Your task to perform on an android device: turn off data saver in the chrome app Image 0: 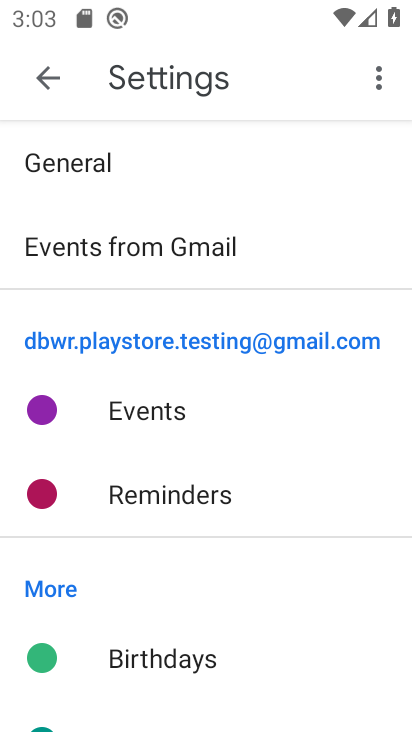
Step 0: drag from (211, 660) to (220, 567)
Your task to perform on an android device: turn off data saver in the chrome app Image 1: 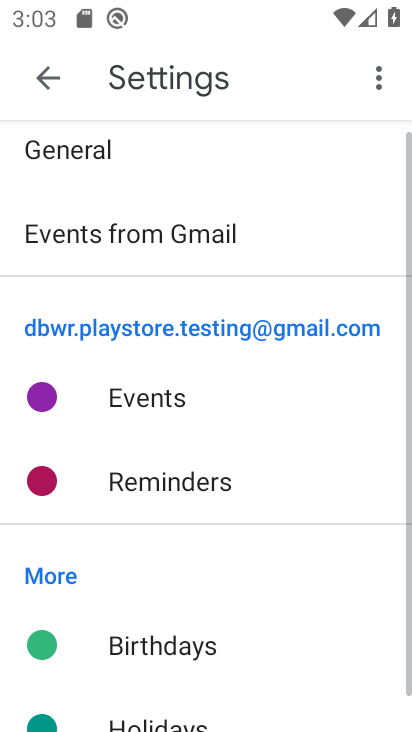
Step 1: press back button
Your task to perform on an android device: turn off data saver in the chrome app Image 2: 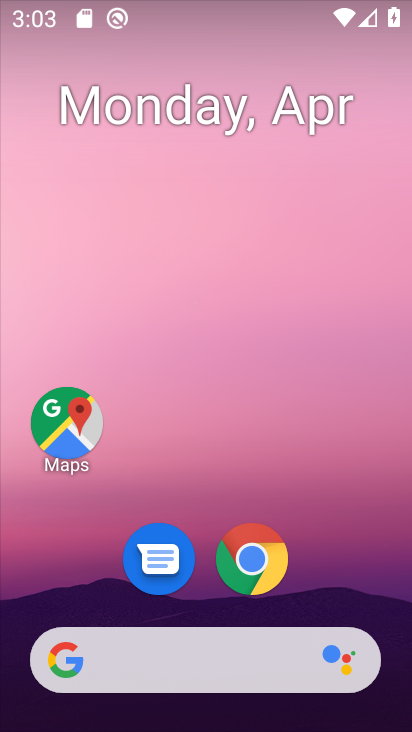
Step 2: click (254, 560)
Your task to perform on an android device: turn off data saver in the chrome app Image 3: 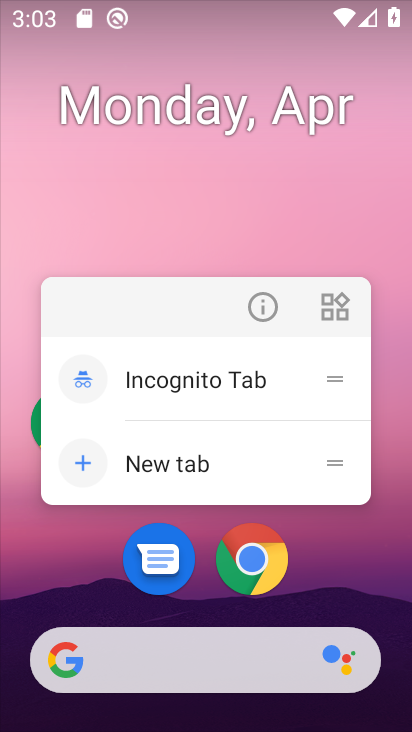
Step 3: drag from (279, 563) to (329, 158)
Your task to perform on an android device: turn off data saver in the chrome app Image 4: 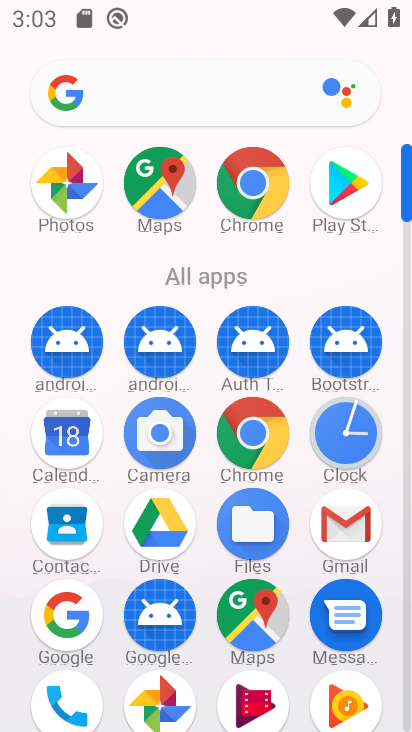
Step 4: click (251, 176)
Your task to perform on an android device: turn off data saver in the chrome app Image 5: 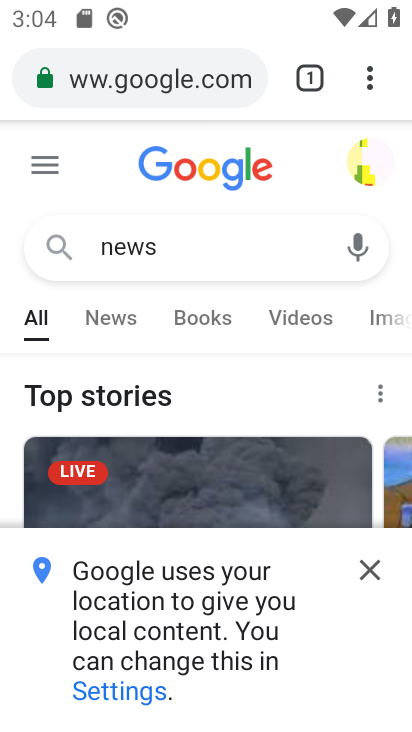
Step 5: click (367, 84)
Your task to perform on an android device: turn off data saver in the chrome app Image 6: 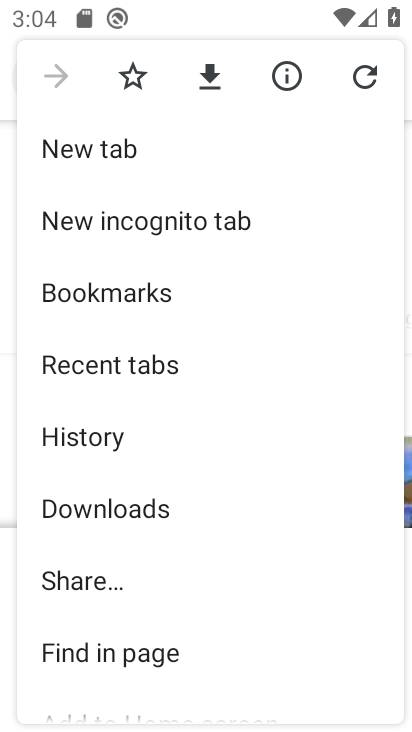
Step 6: drag from (168, 542) to (257, 190)
Your task to perform on an android device: turn off data saver in the chrome app Image 7: 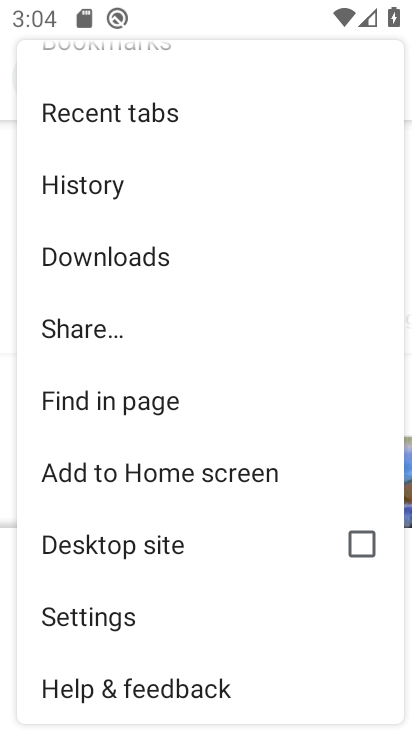
Step 7: click (79, 615)
Your task to perform on an android device: turn off data saver in the chrome app Image 8: 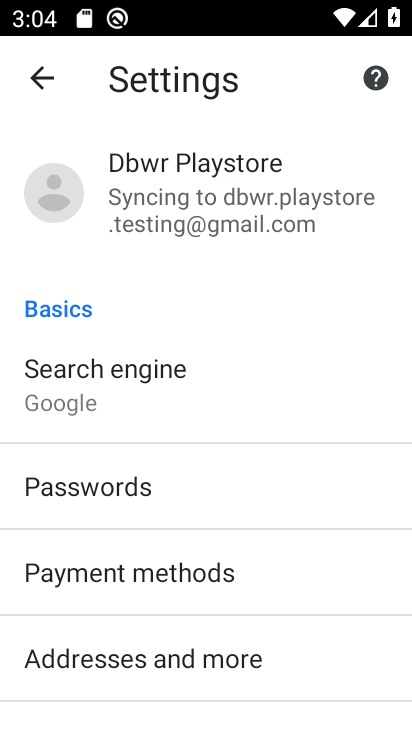
Step 8: drag from (145, 289) to (197, 187)
Your task to perform on an android device: turn off data saver in the chrome app Image 9: 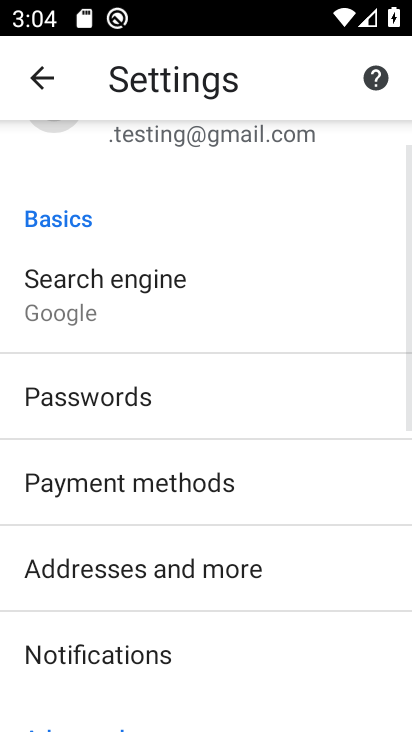
Step 9: drag from (178, 610) to (281, 209)
Your task to perform on an android device: turn off data saver in the chrome app Image 10: 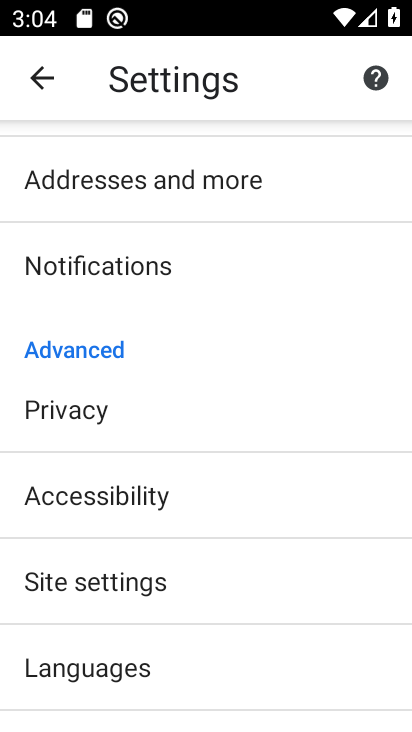
Step 10: drag from (223, 591) to (313, 241)
Your task to perform on an android device: turn off data saver in the chrome app Image 11: 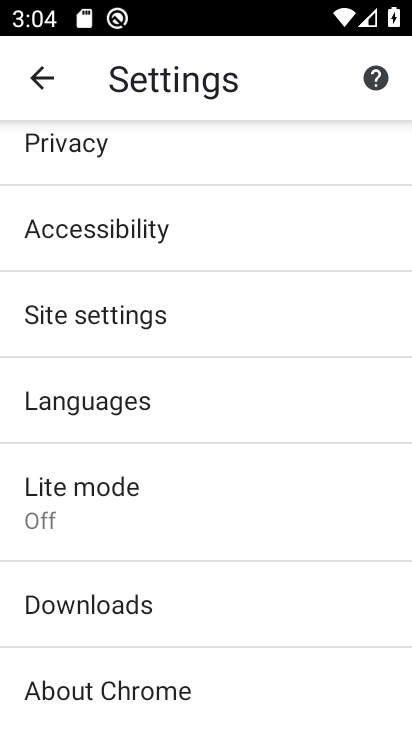
Step 11: click (59, 490)
Your task to perform on an android device: turn off data saver in the chrome app Image 12: 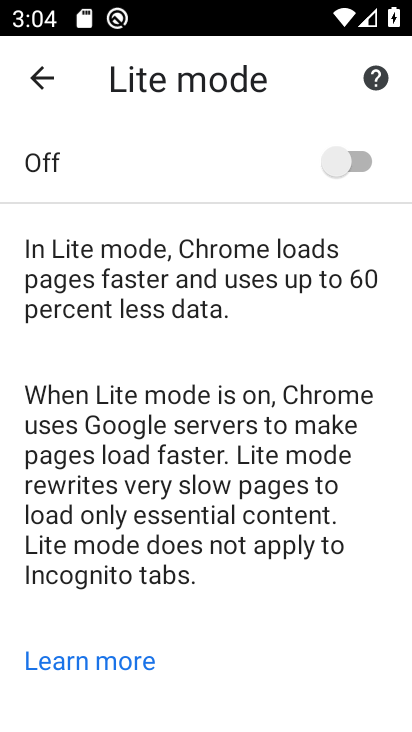
Step 12: task complete